Your task to perform on an android device: Open Google Chrome and open the bookmarks view Image 0: 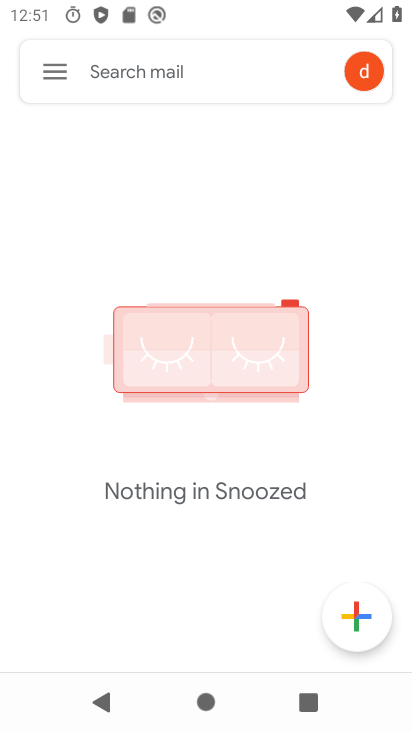
Step 0: press home button
Your task to perform on an android device: Open Google Chrome and open the bookmarks view Image 1: 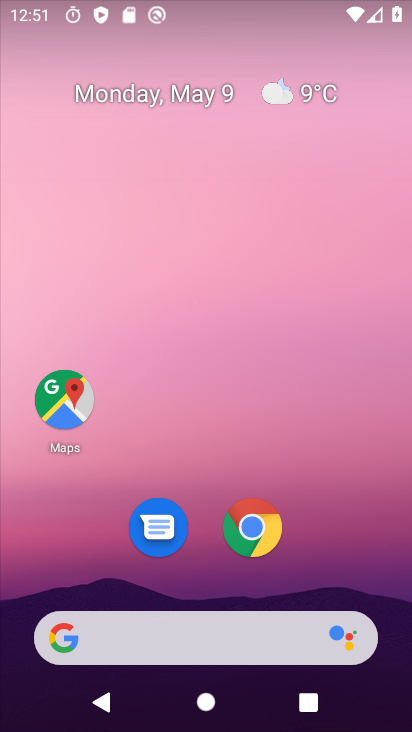
Step 1: click (260, 520)
Your task to perform on an android device: Open Google Chrome and open the bookmarks view Image 2: 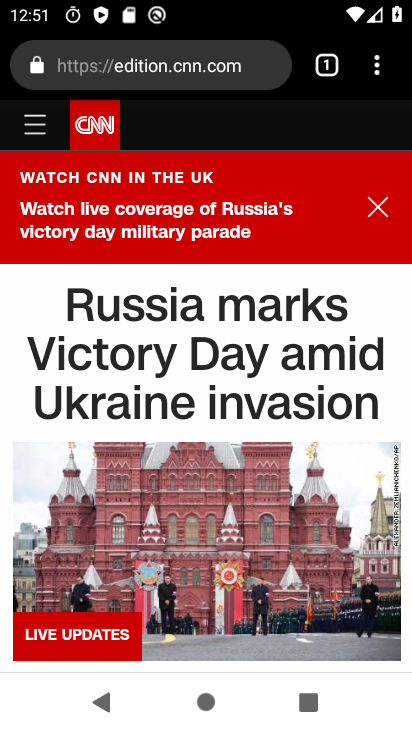
Step 2: task complete